Your task to perform on an android device: turn pop-ups off in chrome Image 0: 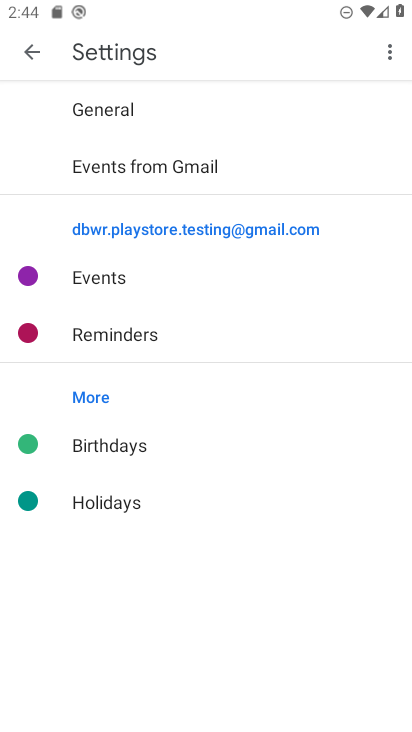
Step 0: press home button
Your task to perform on an android device: turn pop-ups off in chrome Image 1: 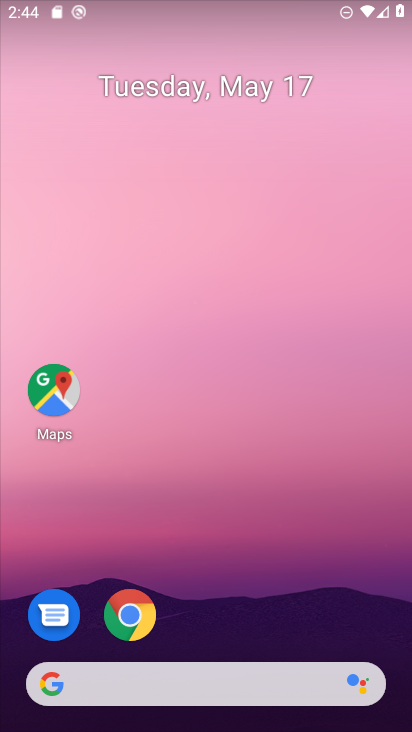
Step 1: click (135, 620)
Your task to perform on an android device: turn pop-ups off in chrome Image 2: 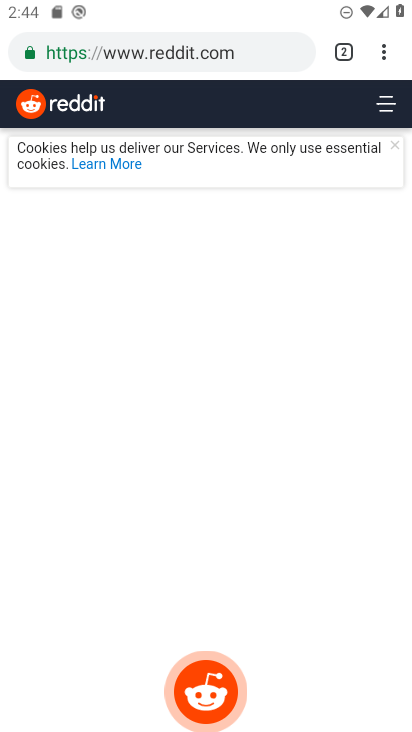
Step 2: click (384, 58)
Your task to perform on an android device: turn pop-ups off in chrome Image 3: 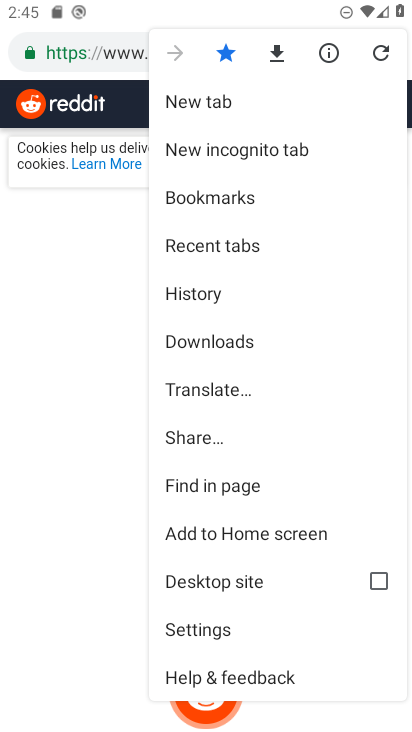
Step 3: click (203, 627)
Your task to perform on an android device: turn pop-ups off in chrome Image 4: 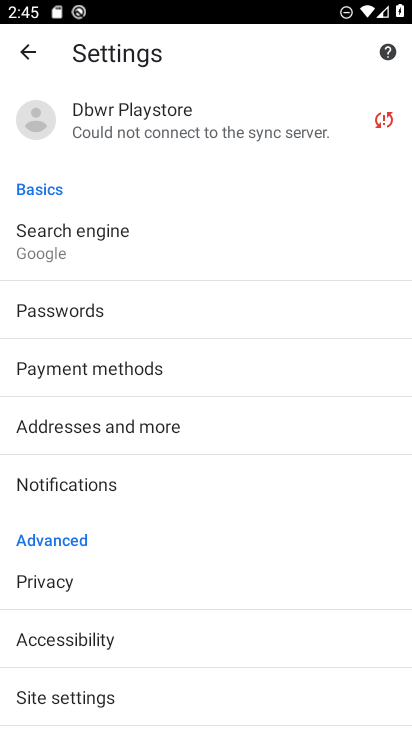
Step 4: drag from (145, 632) to (134, 216)
Your task to perform on an android device: turn pop-ups off in chrome Image 5: 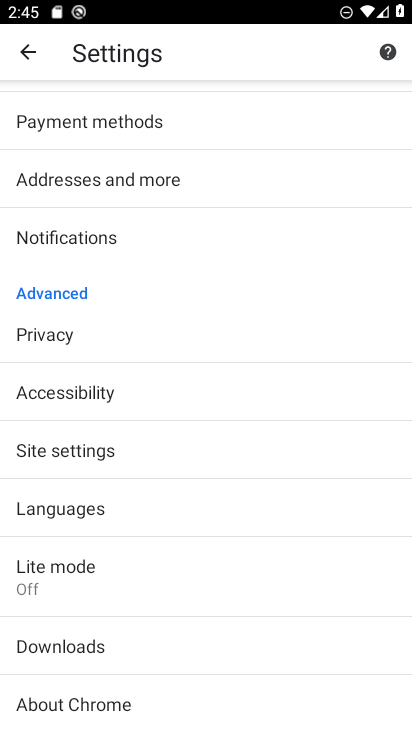
Step 5: click (67, 454)
Your task to perform on an android device: turn pop-ups off in chrome Image 6: 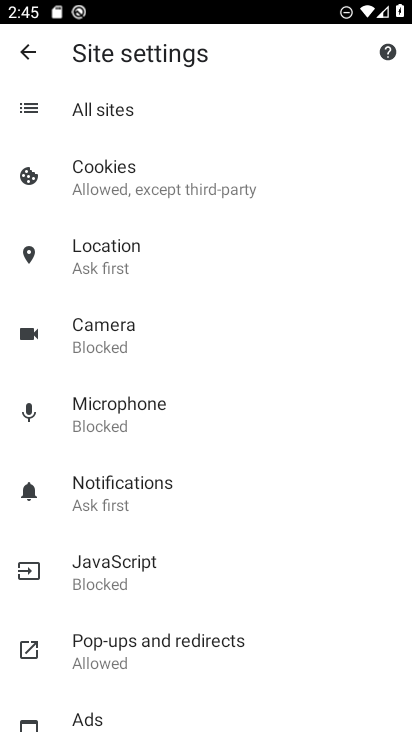
Step 6: click (132, 649)
Your task to perform on an android device: turn pop-ups off in chrome Image 7: 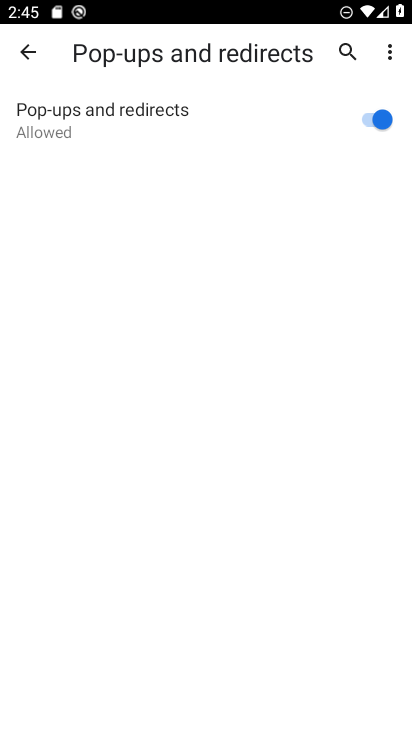
Step 7: click (370, 112)
Your task to perform on an android device: turn pop-ups off in chrome Image 8: 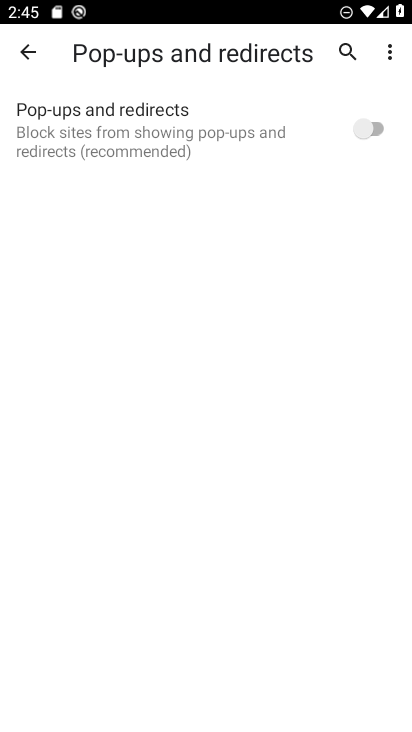
Step 8: task complete